Your task to perform on an android device: Look up the best rated video games on bestbuy.com Image 0: 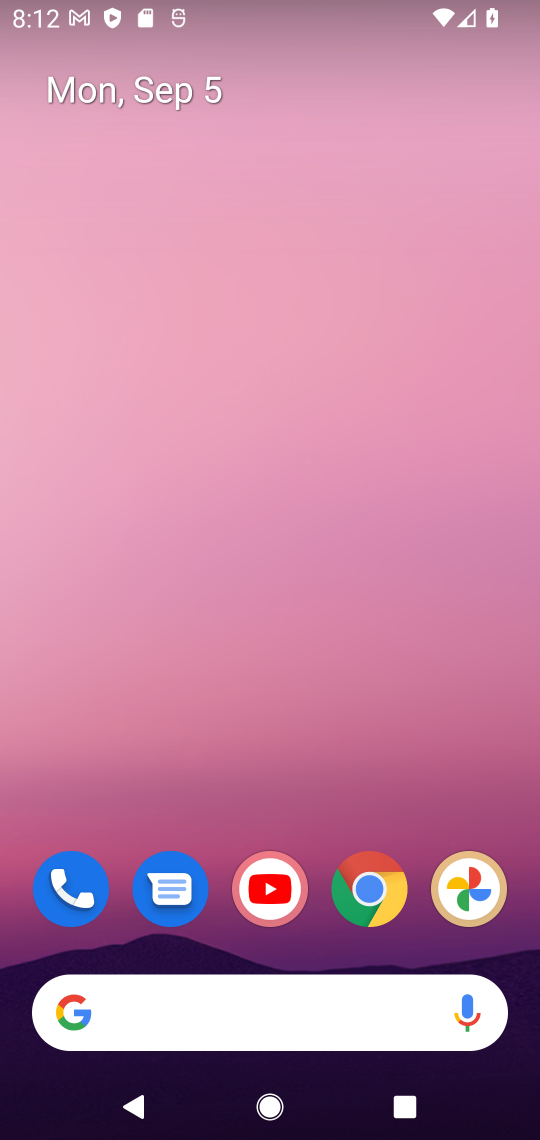
Step 0: drag from (254, 49) to (70, 43)
Your task to perform on an android device: Look up the best rated video games on bestbuy.com Image 1: 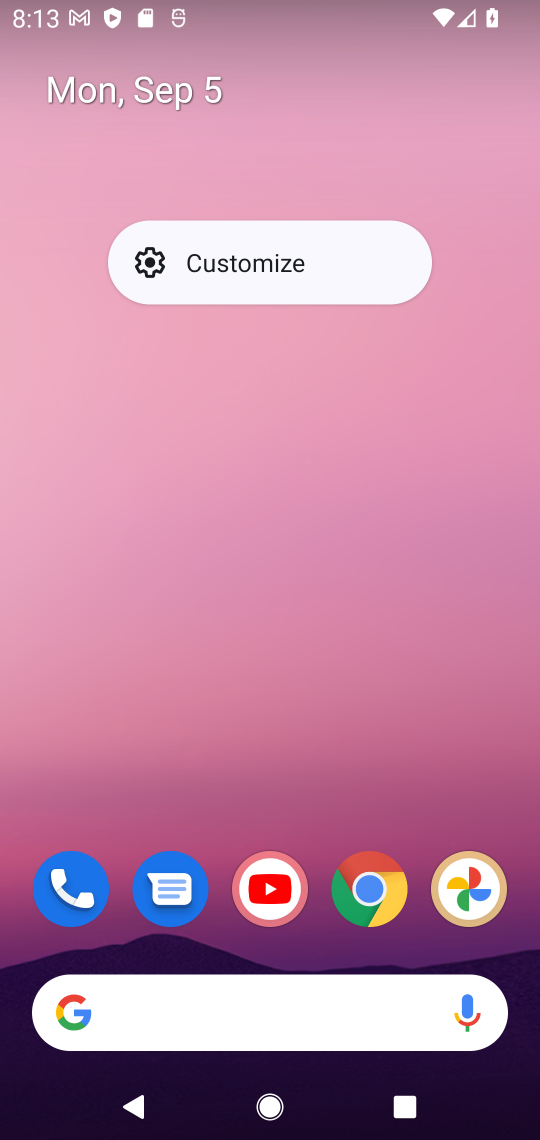
Step 1: click (208, 1024)
Your task to perform on an android device: Look up the best rated video games on bestbuy.com Image 2: 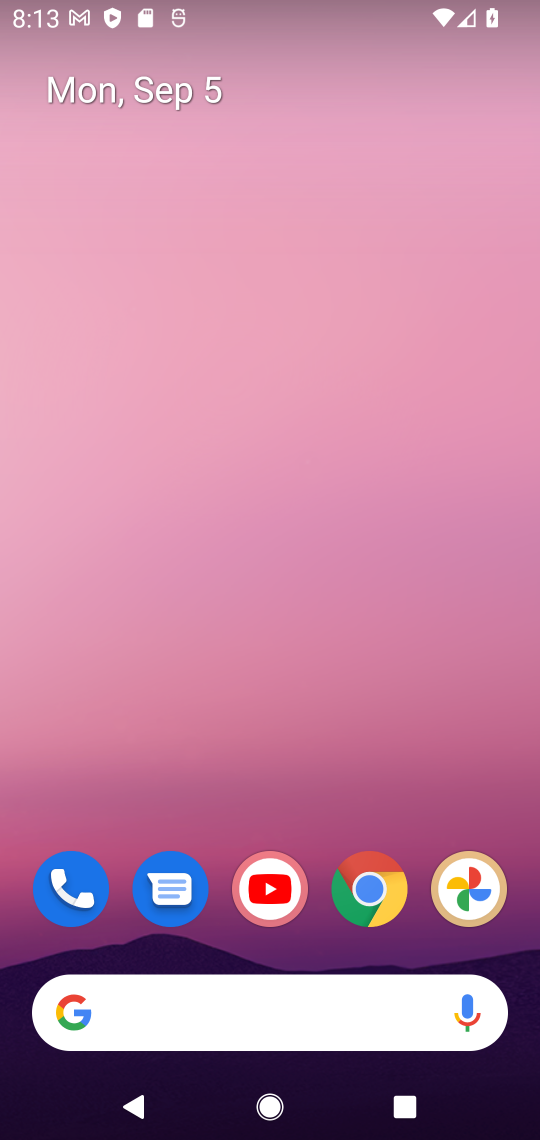
Step 2: click (208, 1024)
Your task to perform on an android device: Look up the best rated video games on bestbuy.com Image 3: 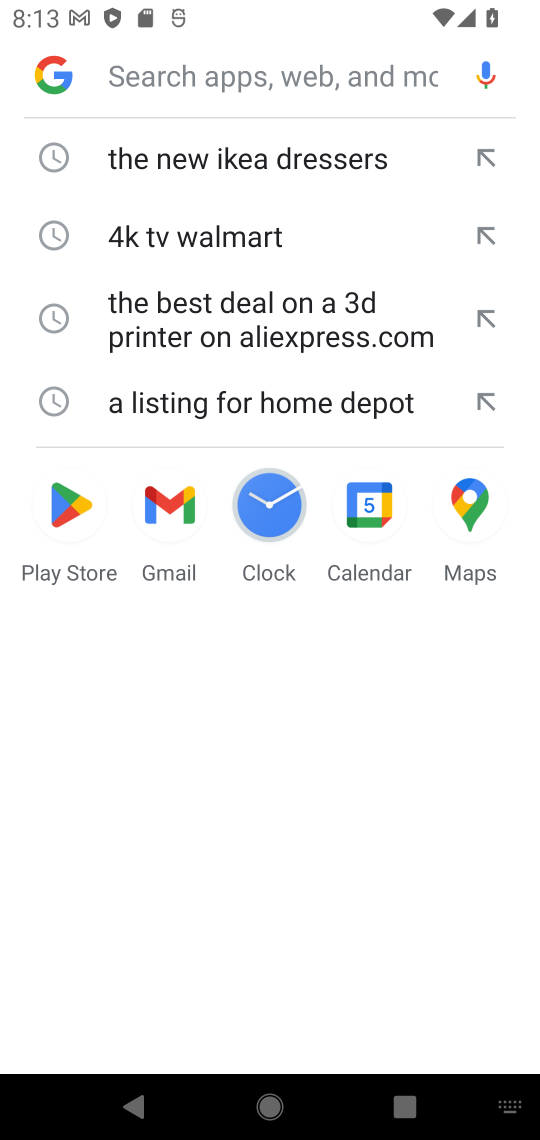
Step 3: type "the best rated video games on bestbuy.com"
Your task to perform on an android device: Look up the best rated video games on bestbuy.com Image 4: 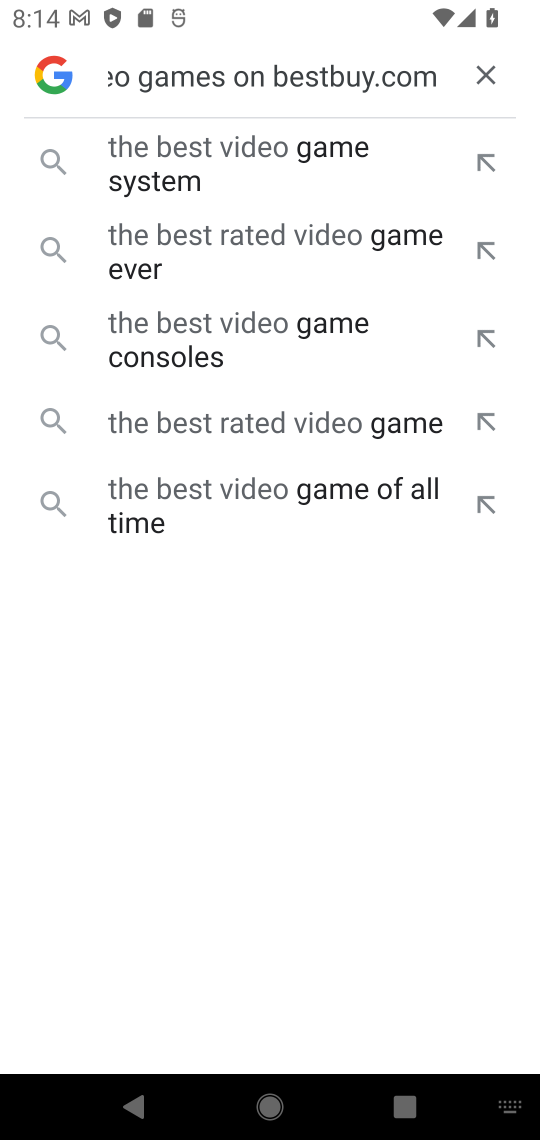
Step 4: click (207, 195)
Your task to perform on an android device: Look up the best rated video games on bestbuy.com Image 5: 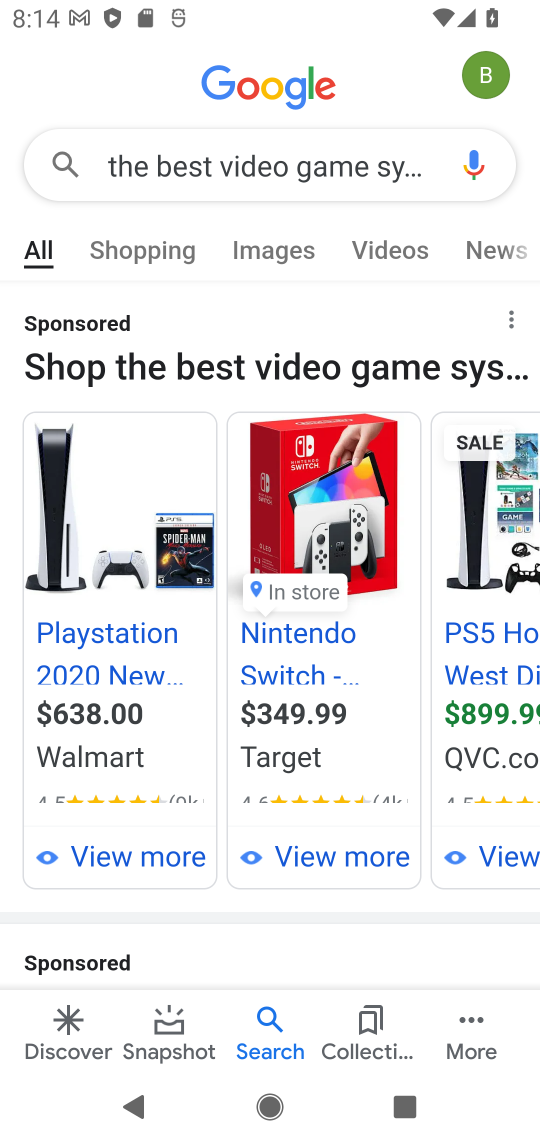
Step 5: task complete